Your task to perform on an android device: Search for Italian restaurants on Maps Image 0: 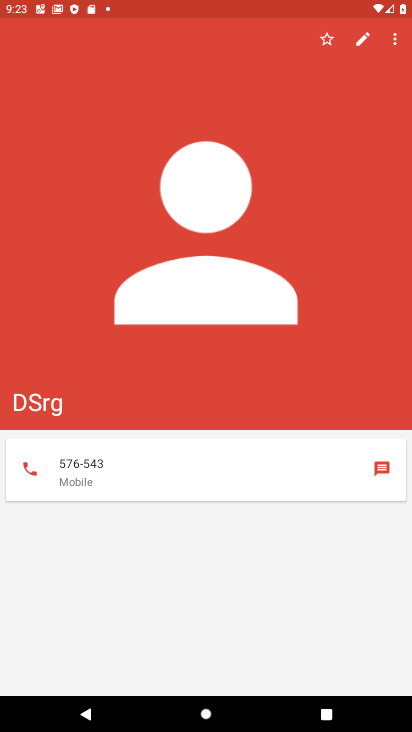
Step 0: press back button
Your task to perform on an android device: Search for Italian restaurants on Maps Image 1: 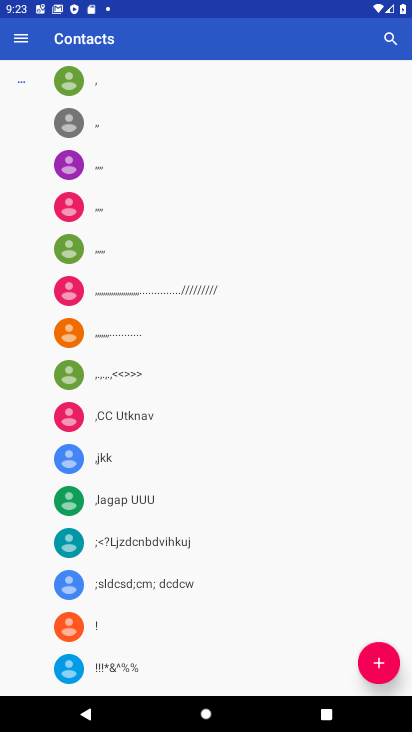
Step 1: press back button
Your task to perform on an android device: Search for Italian restaurants on Maps Image 2: 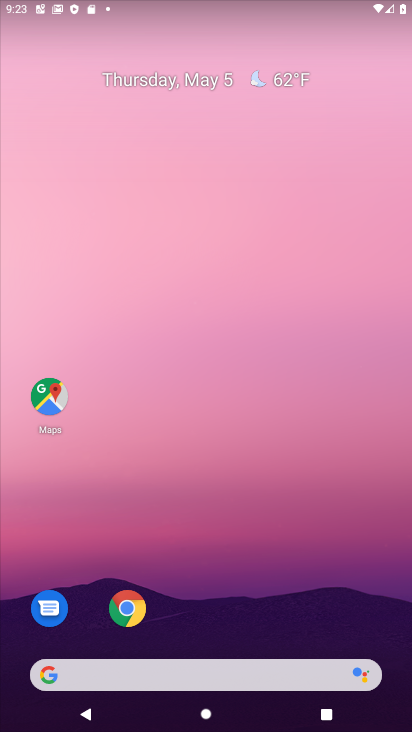
Step 2: drag from (277, 570) to (250, 7)
Your task to perform on an android device: Search for Italian restaurants on Maps Image 3: 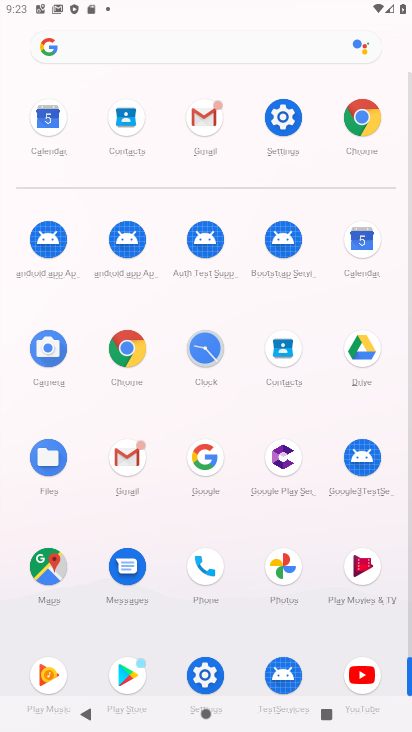
Step 3: drag from (0, 556) to (9, 169)
Your task to perform on an android device: Search for Italian restaurants on Maps Image 4: 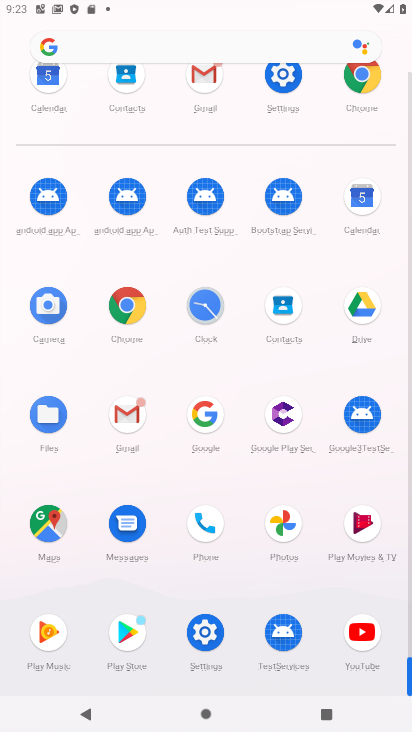
Step 4: click (42, 520)
Your task to perform on an android device: Search for Italian restaurants on Maps Image 5: 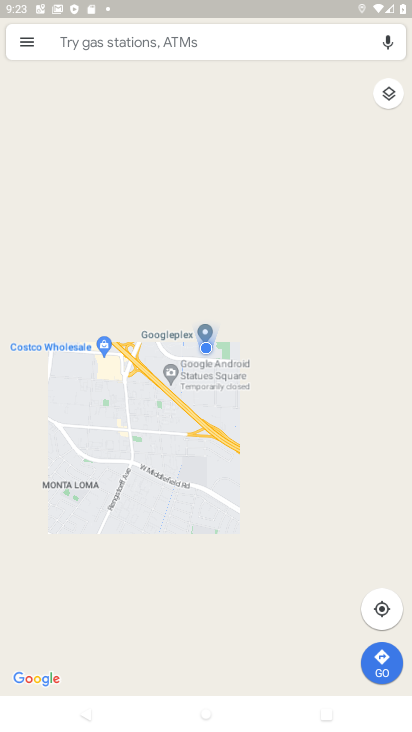
Step 5: click (225, 50)
Your task to perform on an android device: Search for Italian restaurants on Maps Image 6: 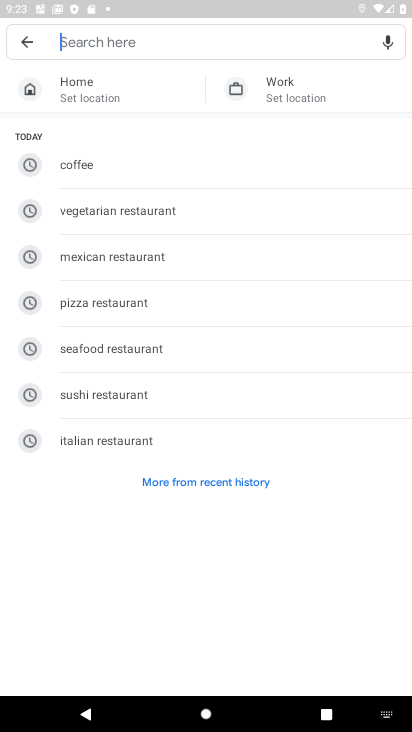
Step 6: click (103, 435)
Your task to perform on an android device: Search for Italian restaurants on Maps Image 7: 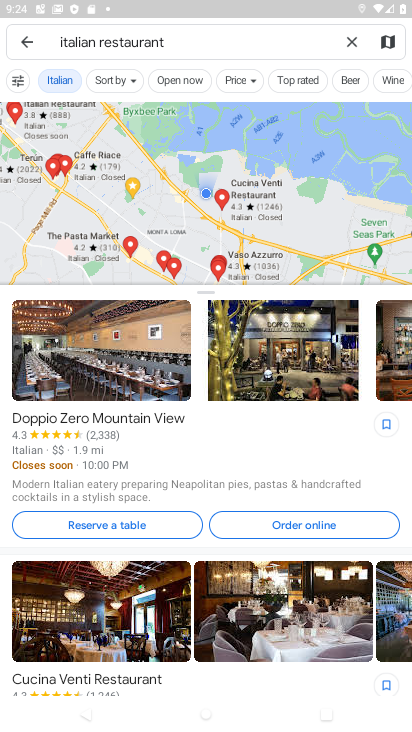
Step 7: task complete